Your task to perform on an android device: turn vacation reply on in the gmail app Image 0: 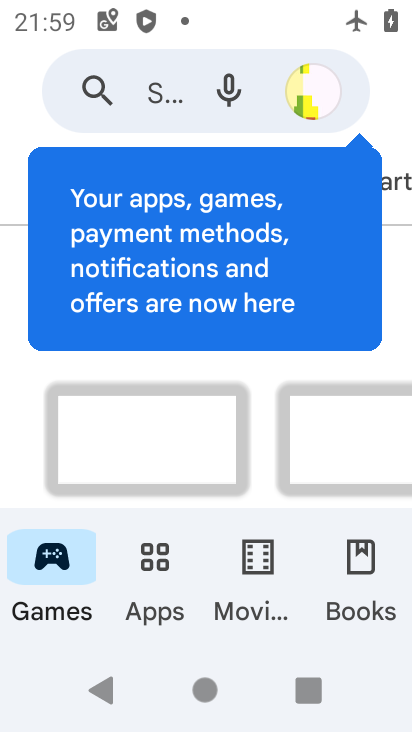
Step 0: press home button
Your task to perform on an android device: turn vacation reply on in the gmail app Image 1: 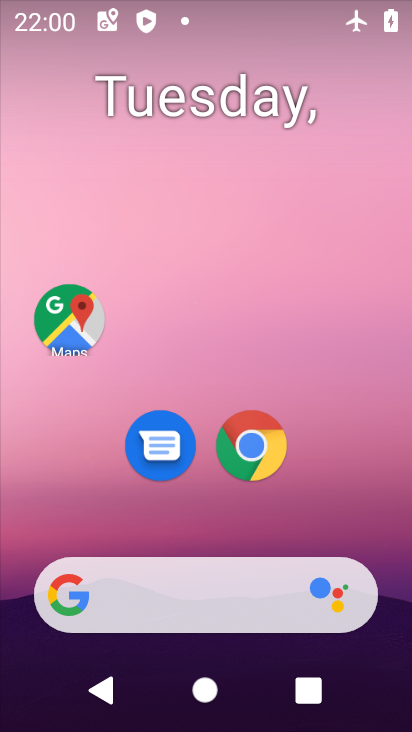
Step 1: drag from (396, 558) to (252, 88)
Your task to perform on an android device: turn vacation reply on in the gmail app Image 2: 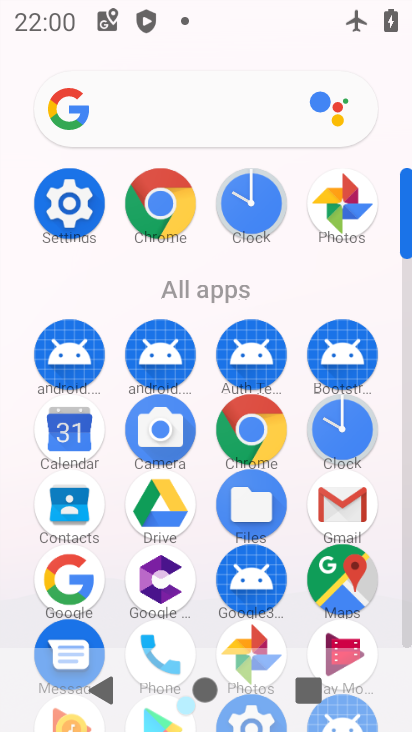
Step 2: click (360, 510)
Your task to perform on an android device: turn vacation reply on in the gmail app Image 3: 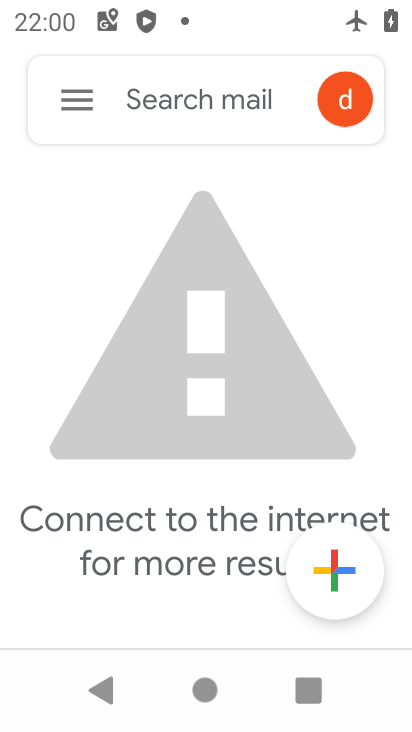
Step 3: click (86, 104)
Your task to perform on an android device: turn vacation reply on in the gmail app Image 4: 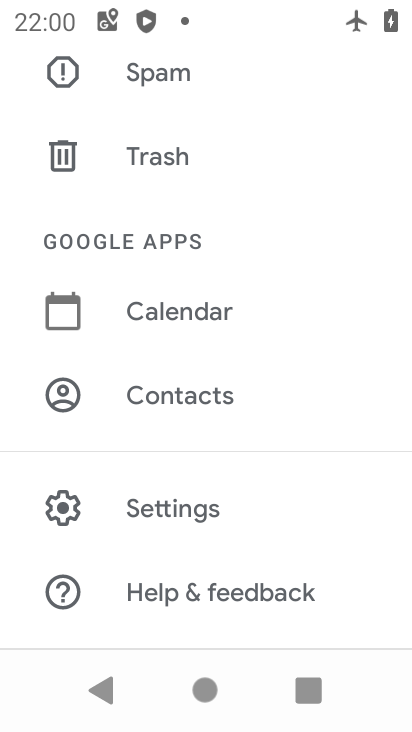
Step 4: click (301, 503)
Your task to perform on an android device: turn vacation reply on in the gmail app Image 5: 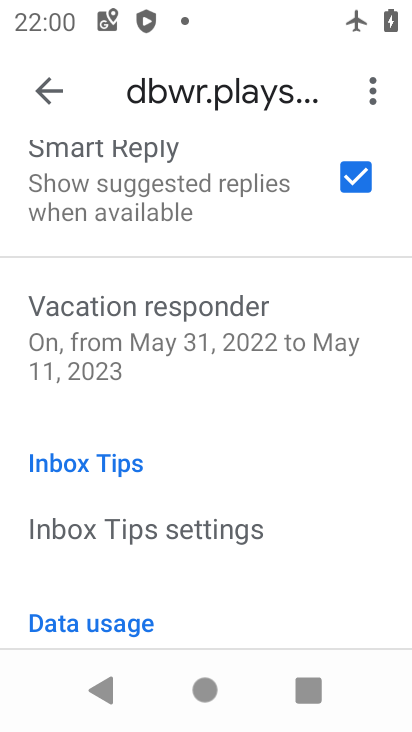
Step 5: click (213, 342)
Your task to perform on an android device: turn vacation reply on in the gmail app Image 6: 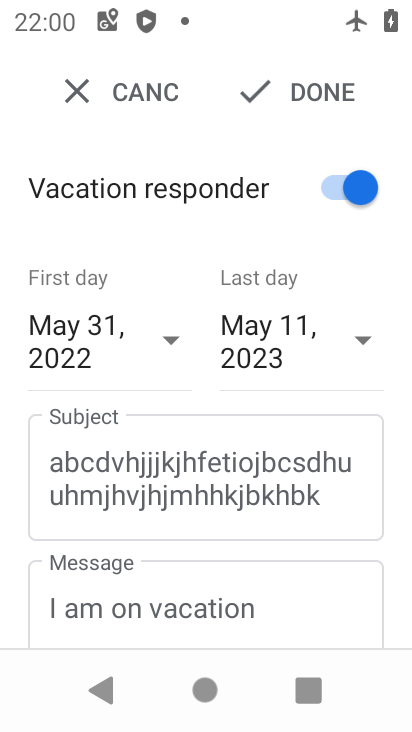
Step 6: click (298, 99)
Your task to perform on an android device: turn vacation reply on in the gmail app Image 7: 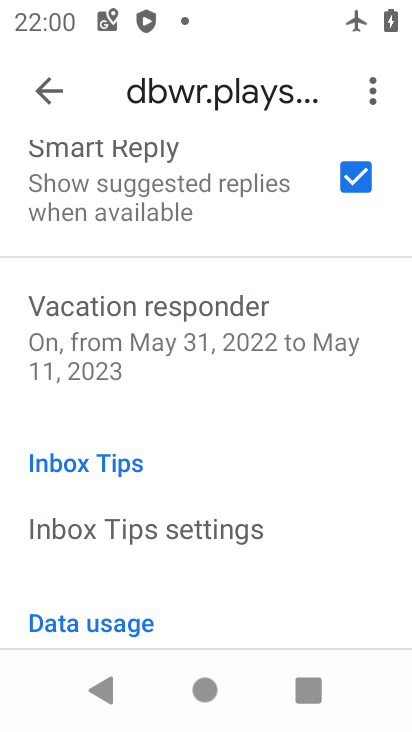
Step 7: task complete